Your task to perform on an android device: set the stopwatch Image 0: 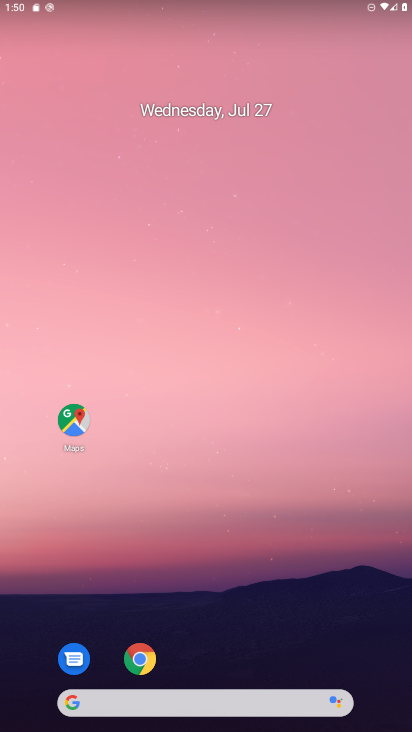
Step 0: drag from (310, 663) to (281, 176)
Your task to perform on an android device: set the stopwatch Image 1: 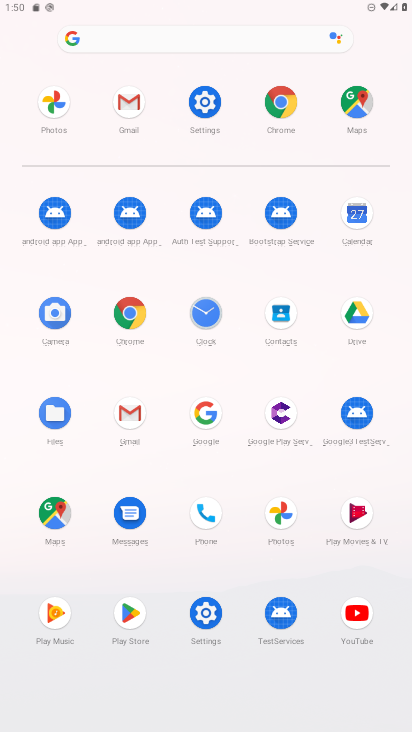
Step 1: click (208, 310)
Your task to perform on an android device: set the stopwatch Image 2: 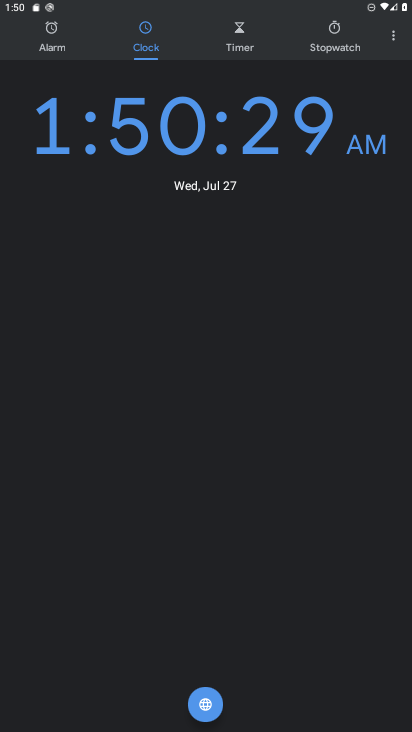
Step 2: click (339, 49)
Your task to perform on an android device: set the stopwatch Image 3: 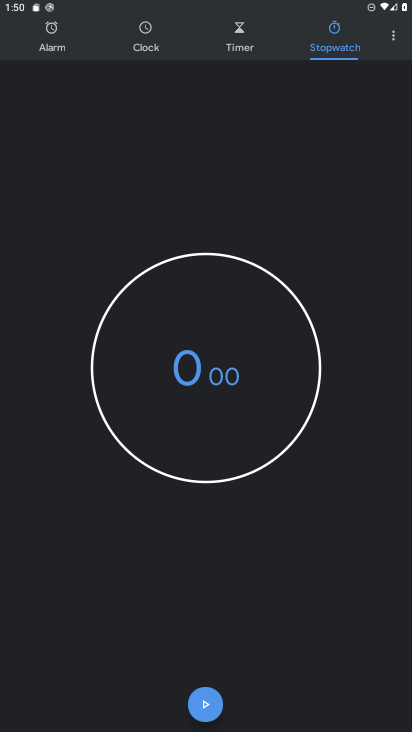
Step 3: click (202, 699)
Your task to perform on an android device: set the stopwatch Image 4: 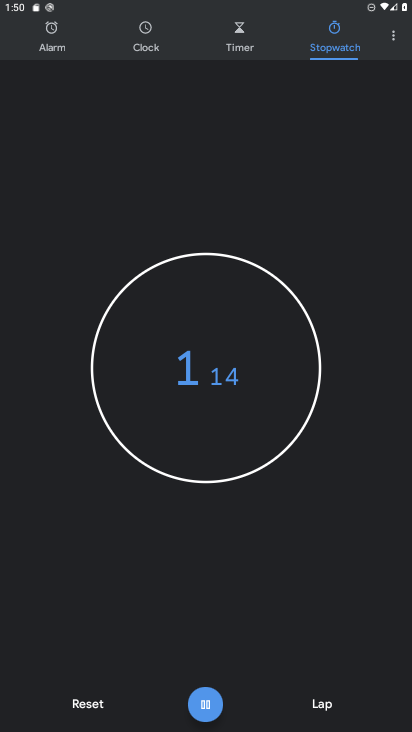
Step 4: click (202, 699)
Your task to perform on an android device: set the stopwatch Image 5: 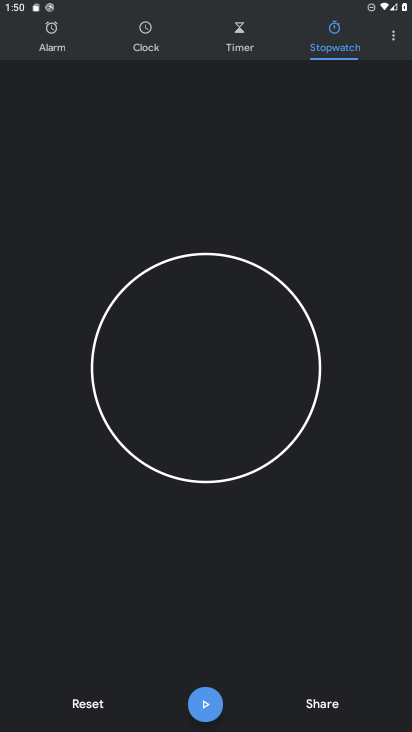
Step 5: task complete